Your task to perform on an android device: What's the weather going to be this weekend? Image 0: 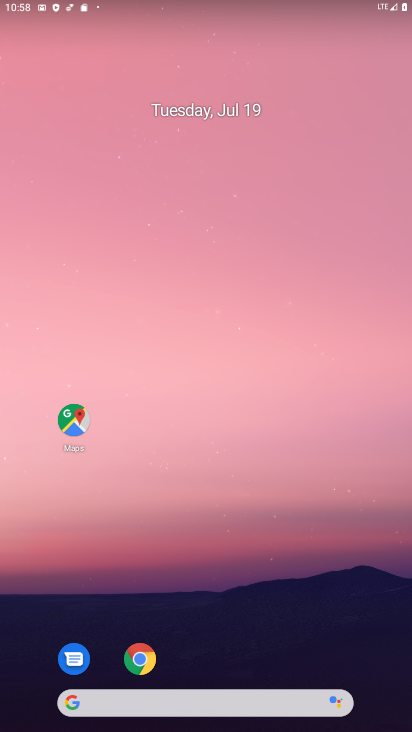
Step 0: click (114, 708)
Your task to perform on an android device: What's the weather going to be this weekend? Image 1: 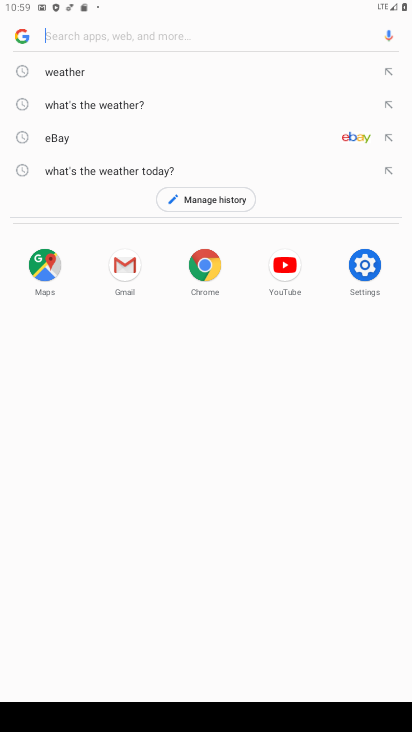
Step 1: type "What's the weather going to be this weekend?"
Your task to perform on an android device: What's the weather going to be this weekend? Image 2: 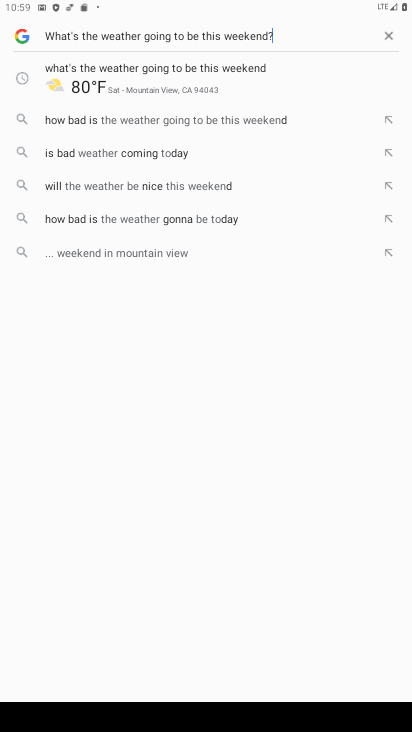
Step 2: press enter
Your task to perform on an android device: What's the weather going to be this weekend? Image 3: 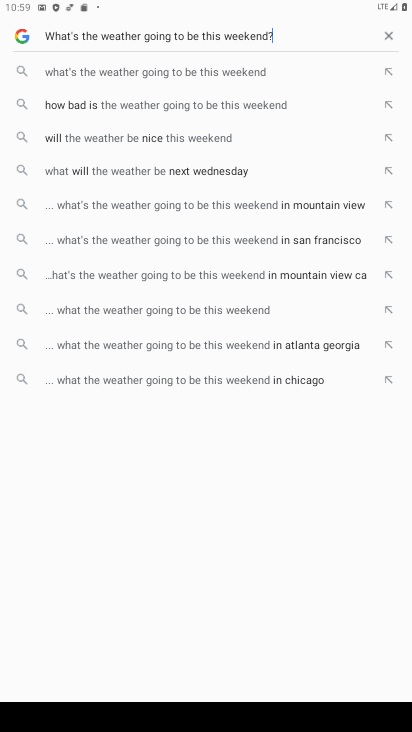
Step 3: type ""
Your task to perform on an android device: What's the weather going to be this weekend? Image 4: 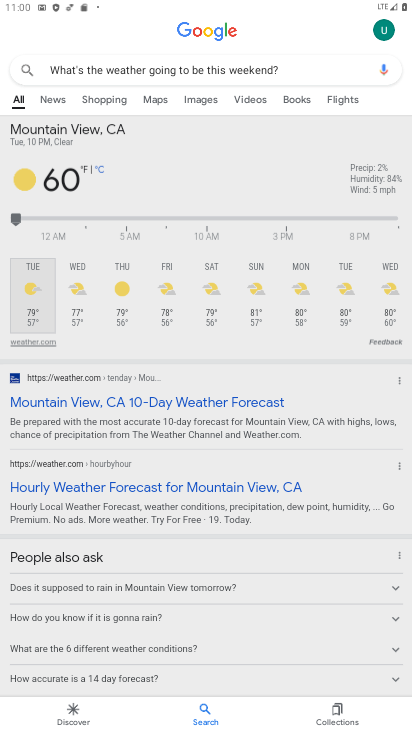
Step 4: task complete